Your task to perform on an android device: delete browsing data in the chrome app Image 0: 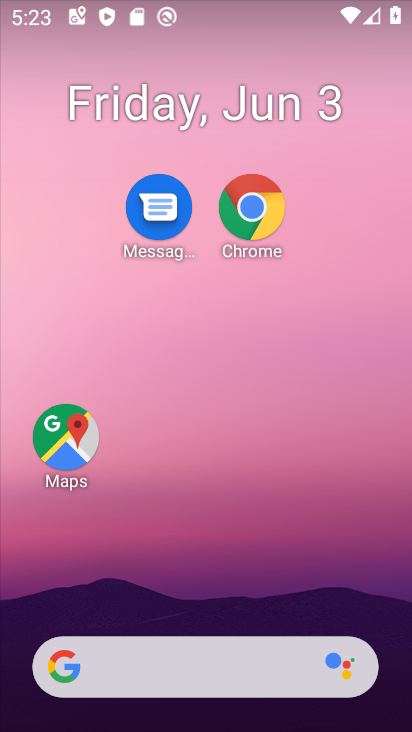
Step 0: drag from (218, 590) to (221, 421)
Your task to perform on an android device: delete browsing data in the chrome app Image 1: 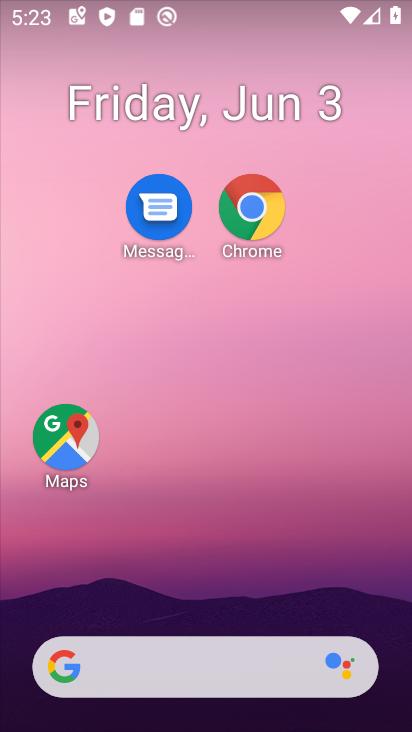
Step 1: click (239, 202)
Your task to perform on an android device: delete browsing data in the chrome app Image 2: 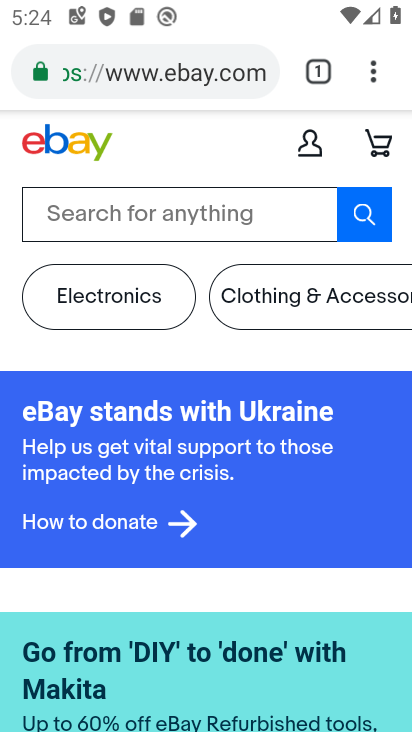
Step 2: click (371, 75)
Your task to perform on an android device: delete browsing data in the chrome app Image 3: 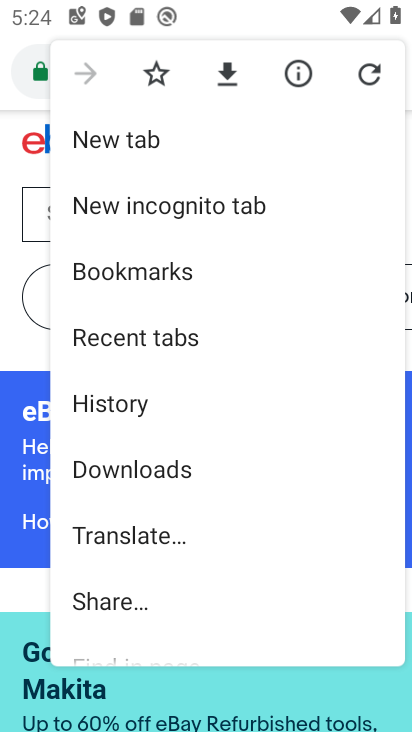
Step 3: drag from (134, 560) to (166, 391)
Your task to perform on an android device: delete browsing data in the chrome app Image 4: 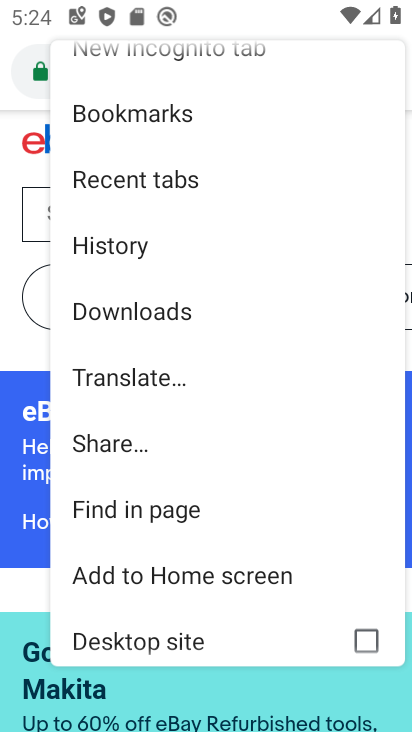
Step 4: drag from (157, 602) to (226, 265)
Your task to perform on an android device: delete browsing data in the chrome app Image 5: 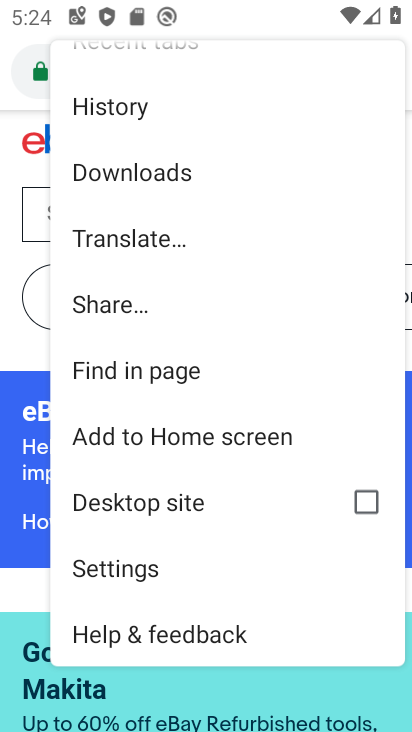
Step 5: click (157, 128)
Your task to perform on an android device: delete browsing data in the chrome app Image 6: 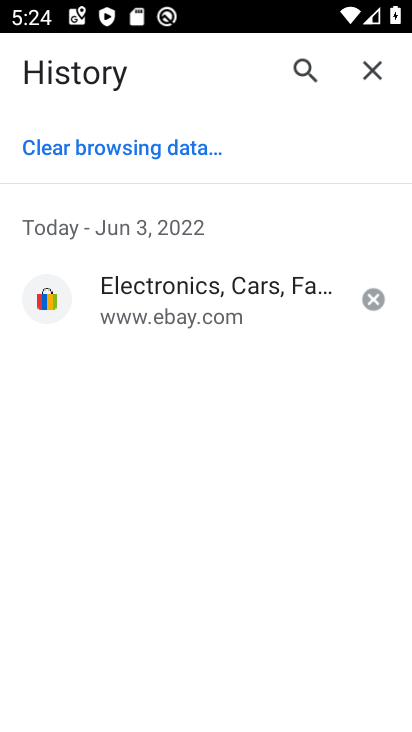
Step 6: click (126, 155)
Your task to perform on an android device: delete browsing data in the chrome app Image 7: 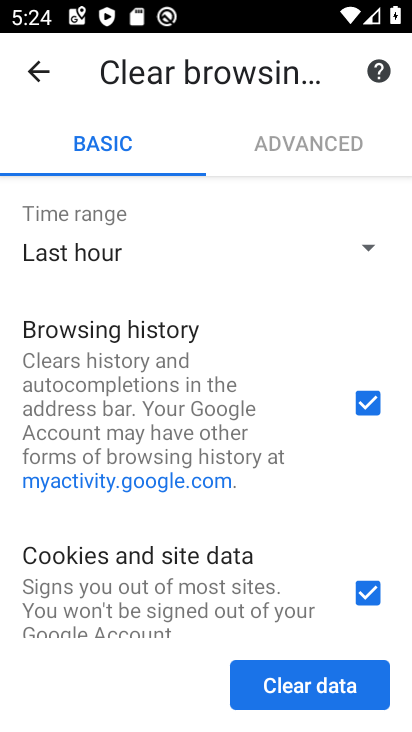
Step 7: drag from (181, 591) to (232, 238)
Your task to perform on an android device: delete browsing data in the chrome app Image 8: 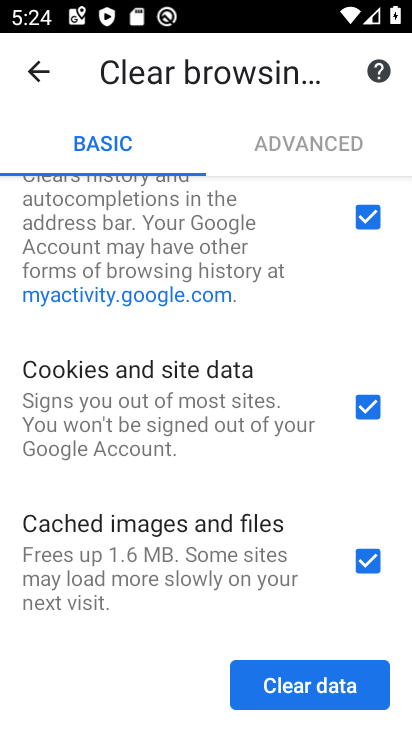
Step 8: click (303, 677)
Your task to perform on an android device: delete browsing data in the chrome app Image 9: 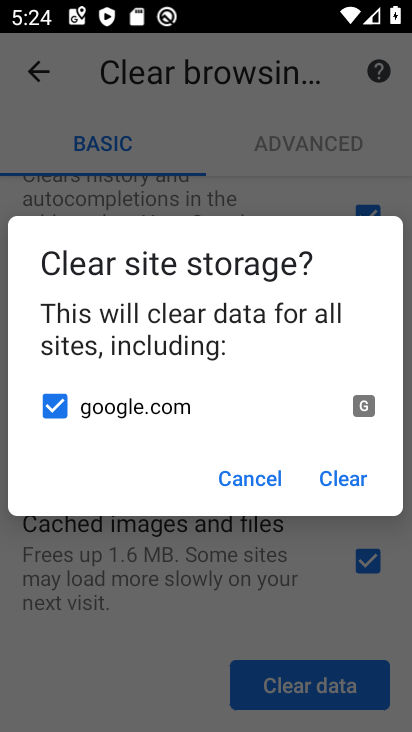
Step 9: click (346, 468)
Your task to perform on an android device: delete browsing data in the chrome app Image 10: 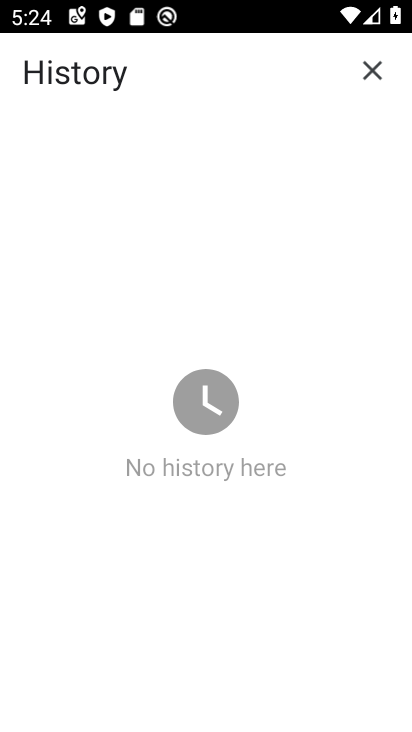
Step 10: task complete